Your task to perform on an android device: toggle sleep mode Image 0: 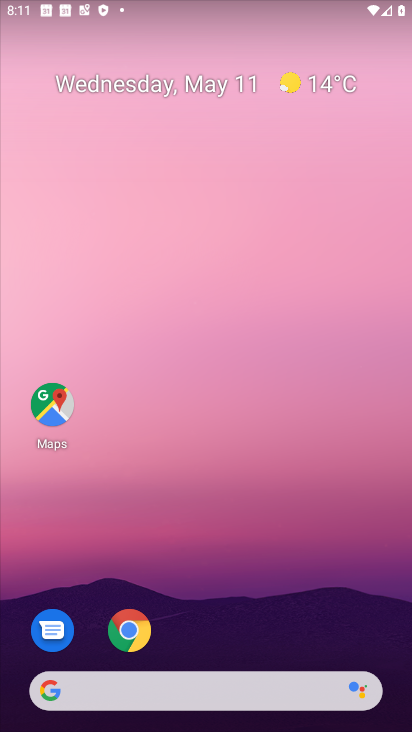
Step 0: drag from (209, 654) to (161, 46)
Your task to perform on an android device: toggle sleep mode Image 1: 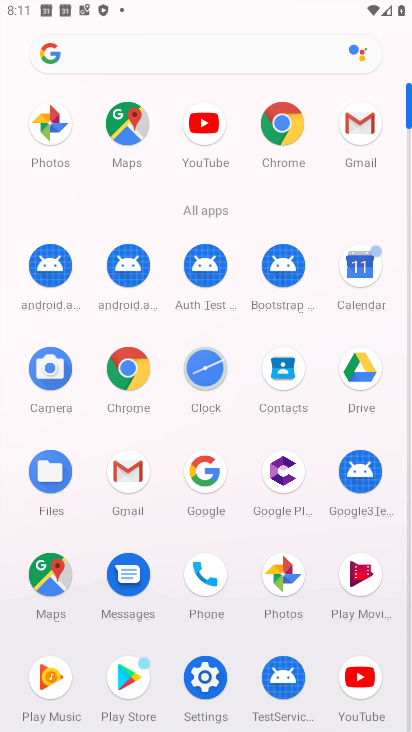
Step 1: click (205, 691)
Your task to perform on an android device: toggle sleep mode Image 2: 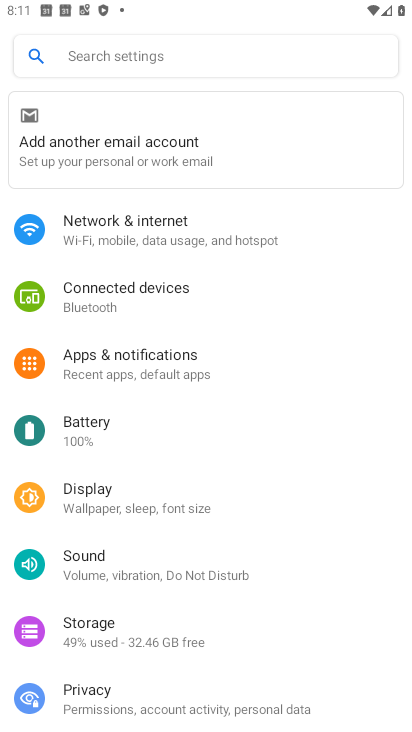
Step 2: click (88, 509)
Your task to perform on an android device: toggle sleep mode Image 3: 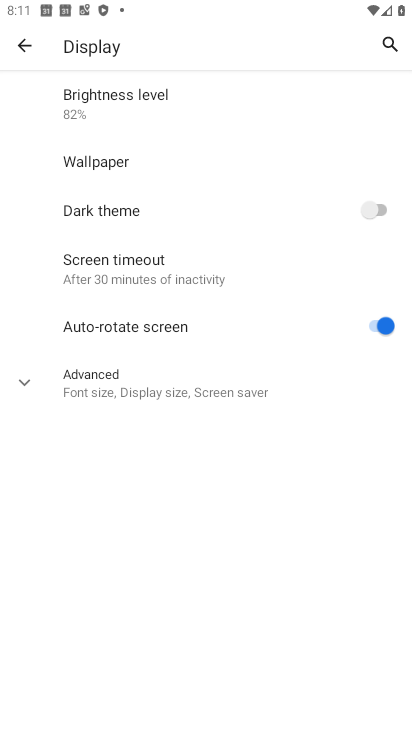
Step 3: click (73, 386)
Your task to perform on an android device: toggle sleep mode Image 4: 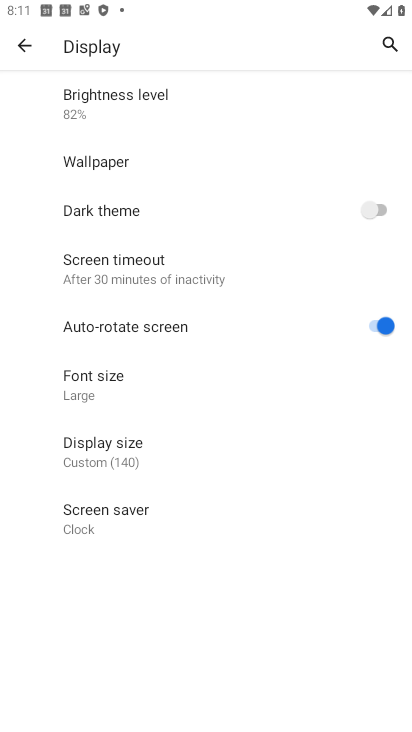
Step 4: task complete